Your task to perform on an android device: toggle data saver in the chrome app Image 0: 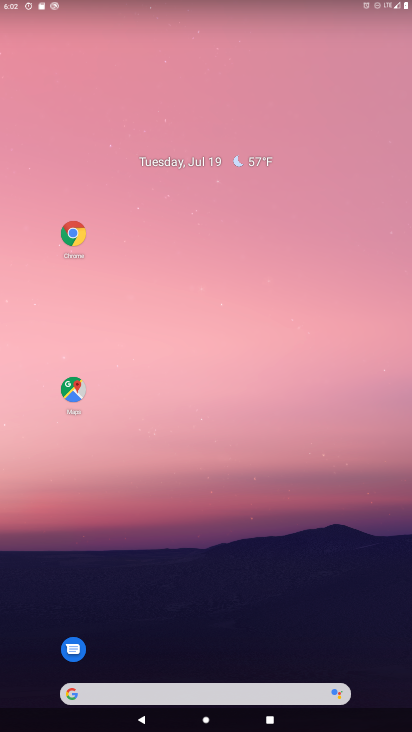
Step 0: drag from (210, 460) to (247, 37)
Your task to perform on an android device: toggle data saver in the chrome app Image 1: 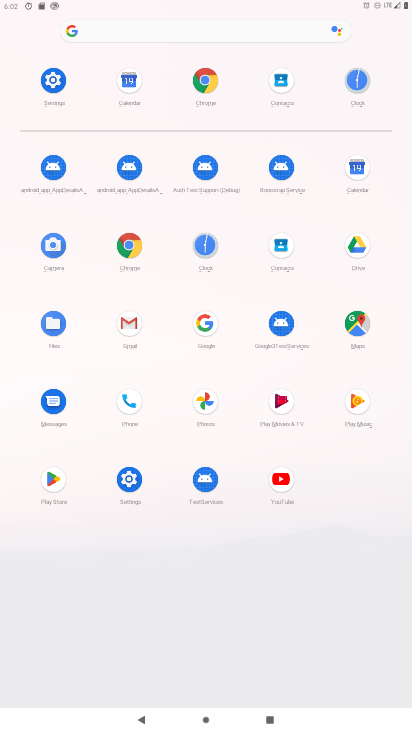
Step 1: task complete